Your task to perform on an android device: make emails show in primary in the gmail app Image 0: 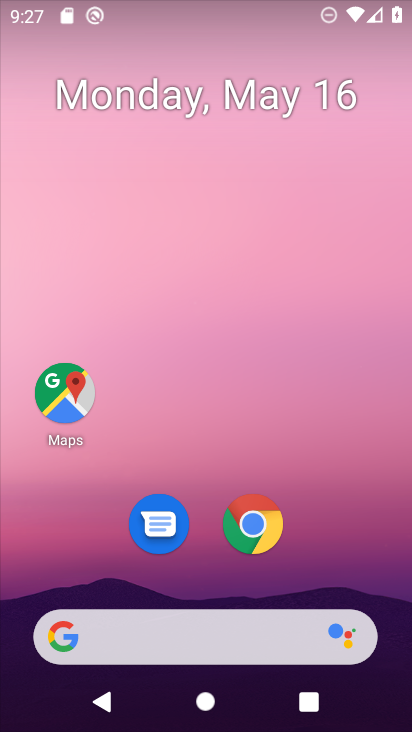
Step 0: drag from (332, 518) to (286, 28)
Your task to perform on an android device: make emails show in primary in the gmail app Image 1: 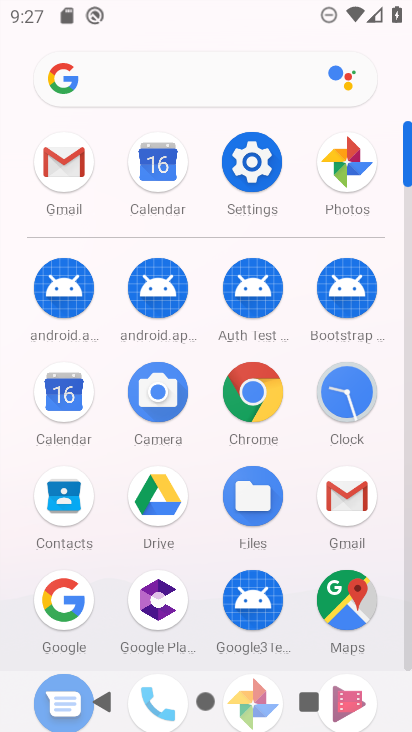
Step 1: click (68, 156)
Your task to perform on an android device: make emails show in primary in the gmail app Image 2: 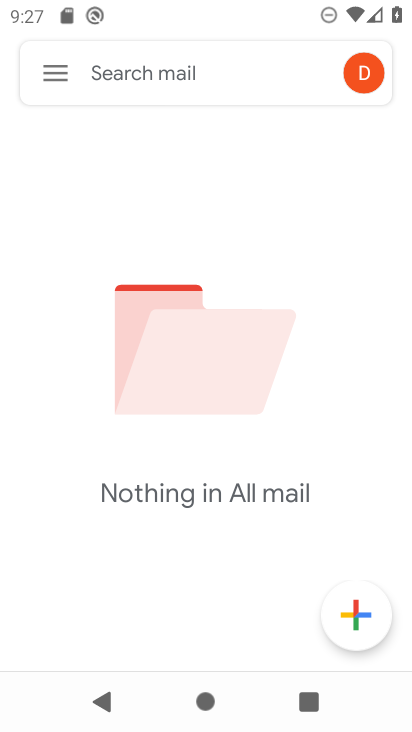
Step 2: click (49, 72)
Your task to perform on an android device: make emails show in primary in the gmail app Image 3: 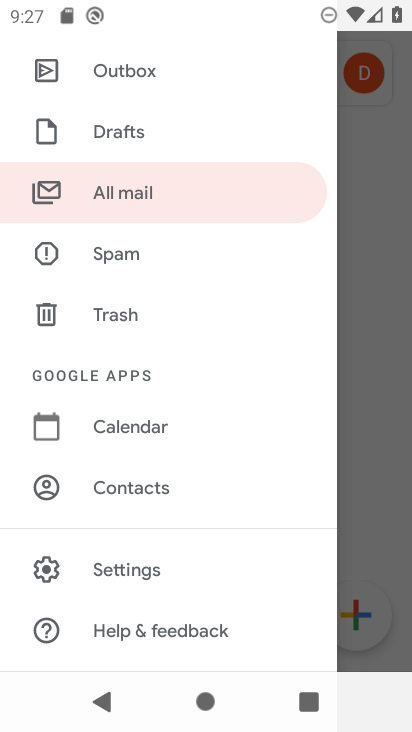
Step 3: click (126, 569)
Your task to perform on an android device: make emails show in primary in the gmail app Image 4: 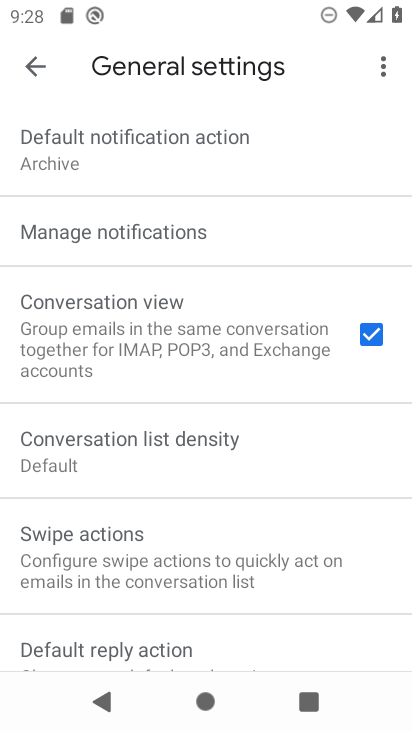
Step 4: click (38, 52)
Your task to perform on an android device: make emails show in primary in the gmail app Image 5: 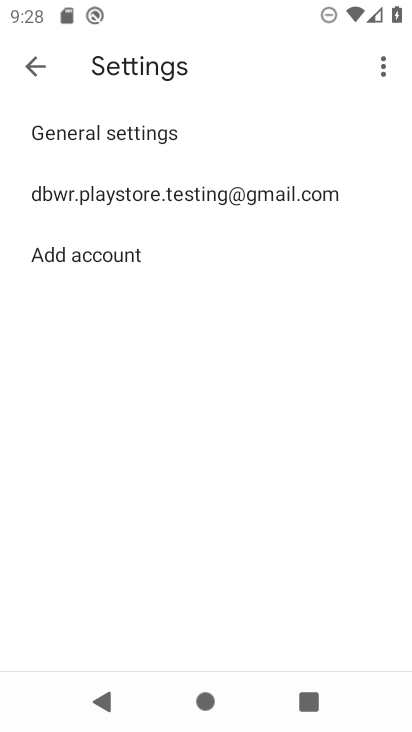
Step 5: click (130, 188)
Your task to perform on an android device: make emails show in primary in the gmail app Image 6: 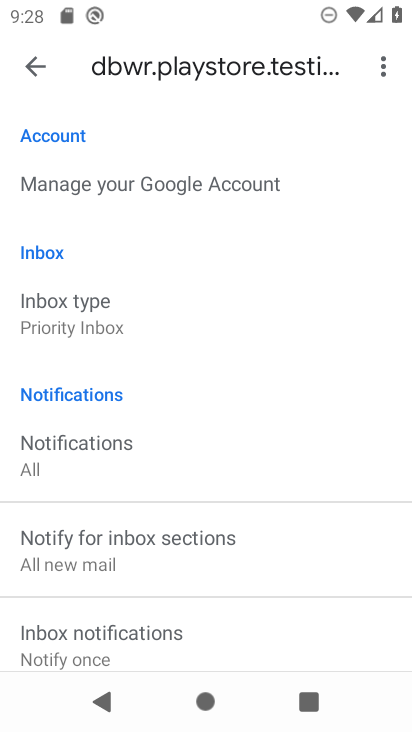
Step 6: click (91, 302)
Your task to perform on an android device: make emails show in primary in the gmail app Image 7: 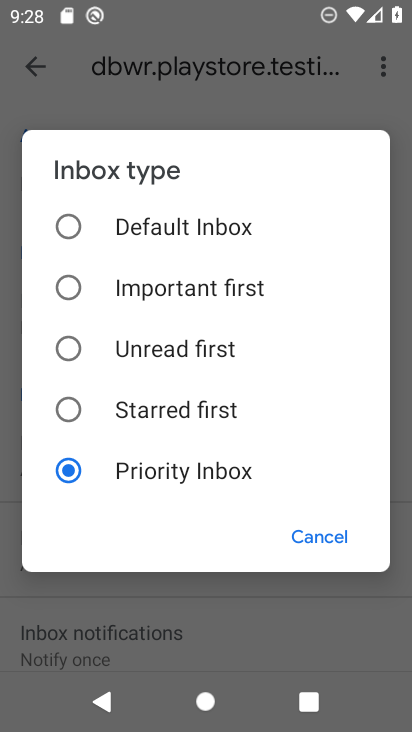
Step 7: click (95, 217)
Your task to perform on an android device: make emails show in primary in the gmail app Image 8: 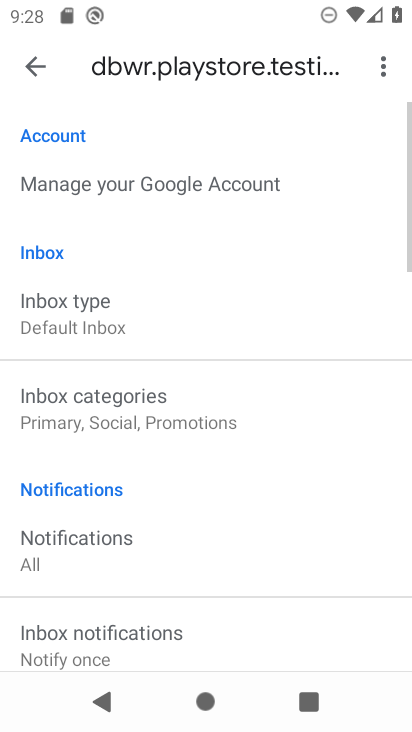
Step 8: click (141, 405)
Your task to perform on an android device: make emails show in primary in the gmail app Image 9: 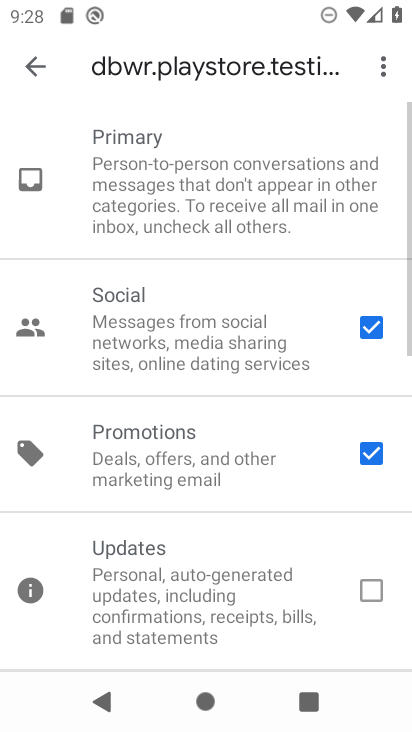
Step 9: click (365, 317)
Your task to perform on an android device: make emails show in primary in the gmail app Image 10: 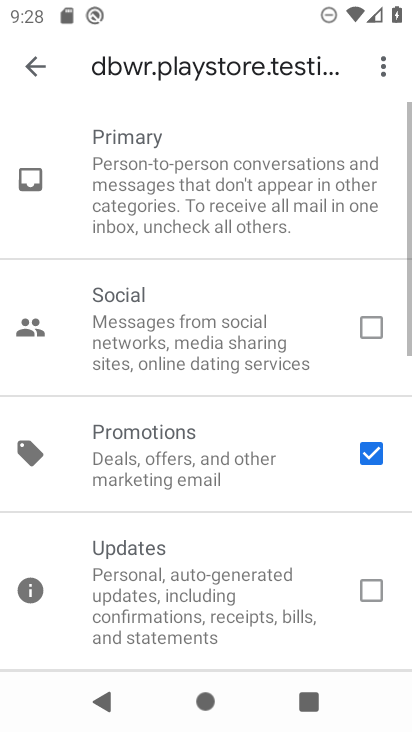
Step 10: click (373, 441)
Your task to perform on an android device: make emails show in primary in the gmail app Image 11: 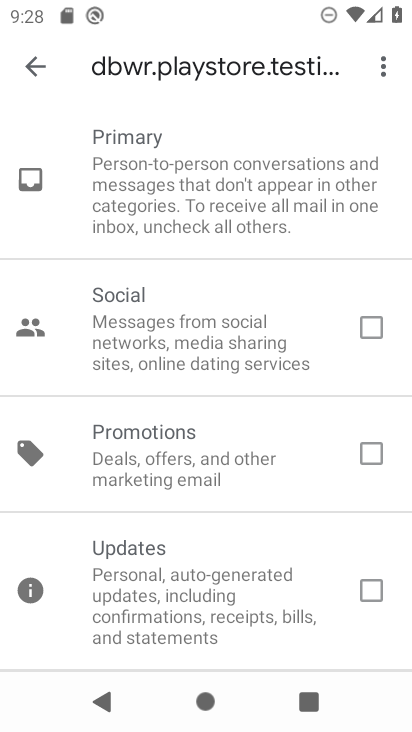
Step 11: click (37, 63)
Your task to perform on an android device: make emails show in primary in the gmail app Image 12: 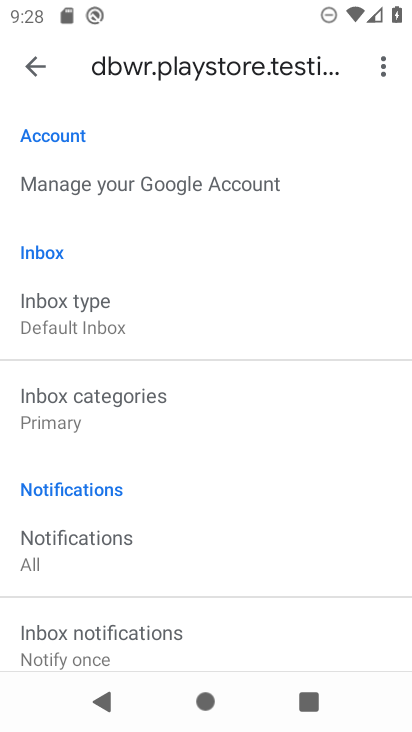
Step 12: task complete